Your task to perform on an android device: What's on my calendar today? Image 0: 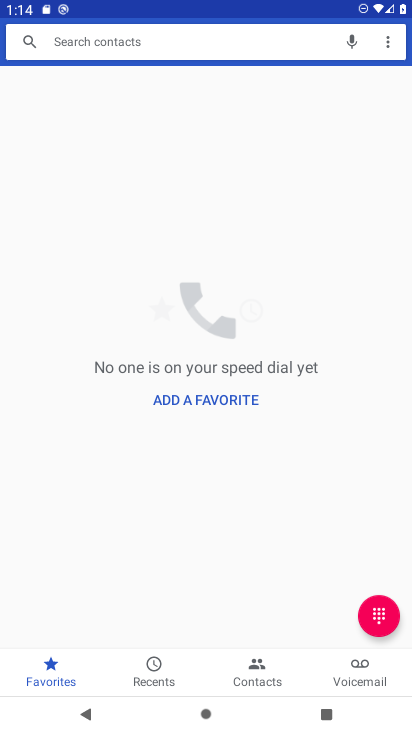
Step 0: press home button
Your task to perform on an android device: What's on my calendar today? Image 1: 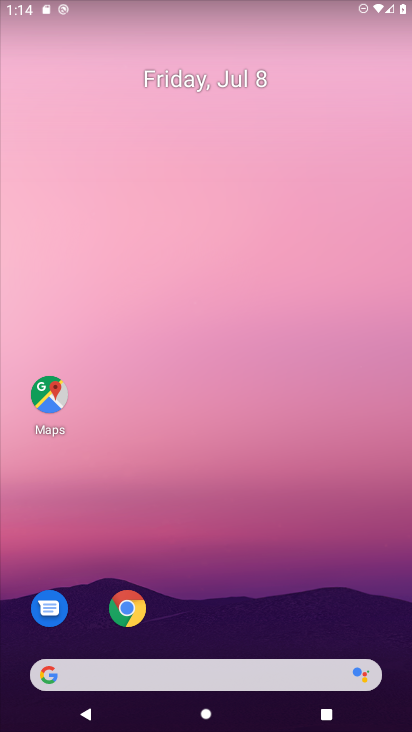
Step 1: drag from (272, 606) to (263, 154)
Your task to perform on an android device: What's on my calendar today? Image 2: 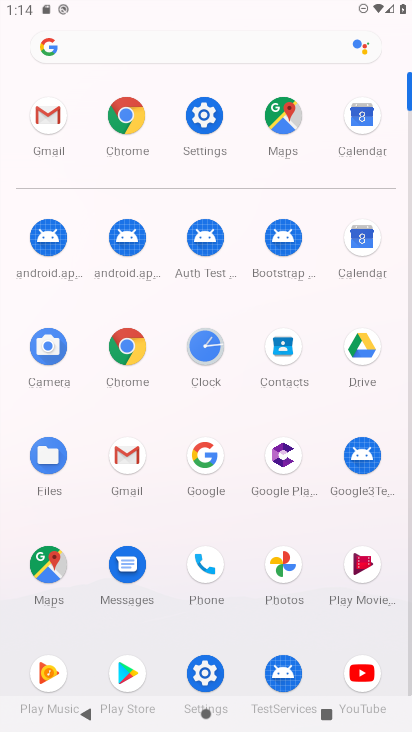
Step 2: click (369, 124)
Your task to perform on an android device: What's on my calendar today? Image 3: 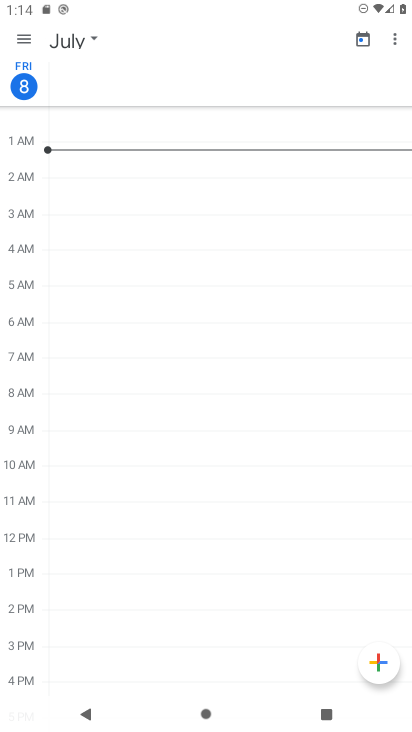
Step 3: task complete